Your task to perform on an android device: turn off improve location accuracy Image 0: 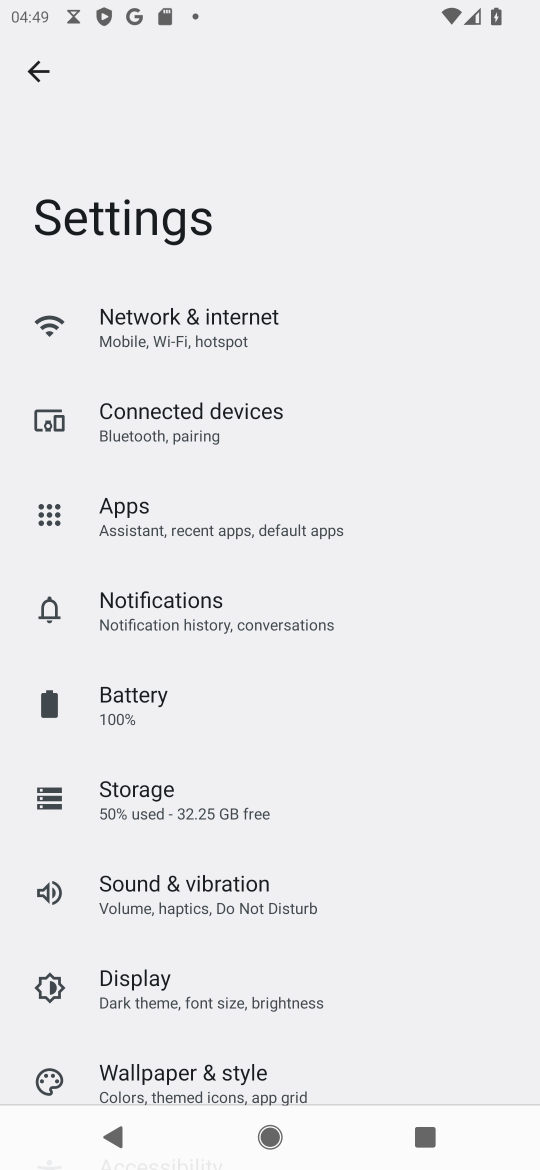
Step 0: press home button
Your task to perform on an android device: turn off improve location accuracy Image 1: 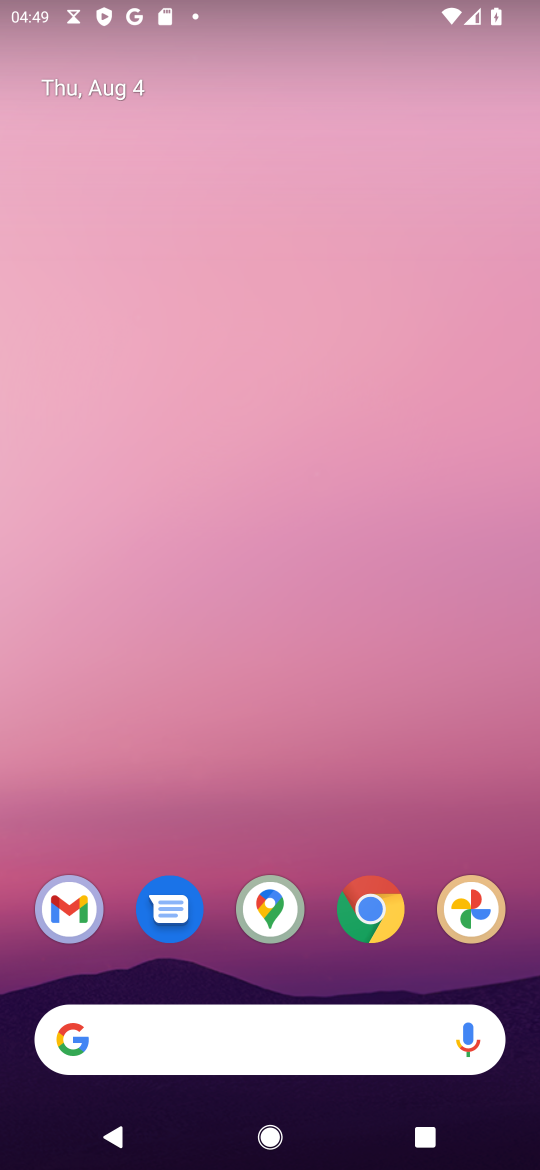
Step 1: drag from (204, 1033) to (280, 216)
Your task to perform on an android device: turn off improve location accuracy Image 2: 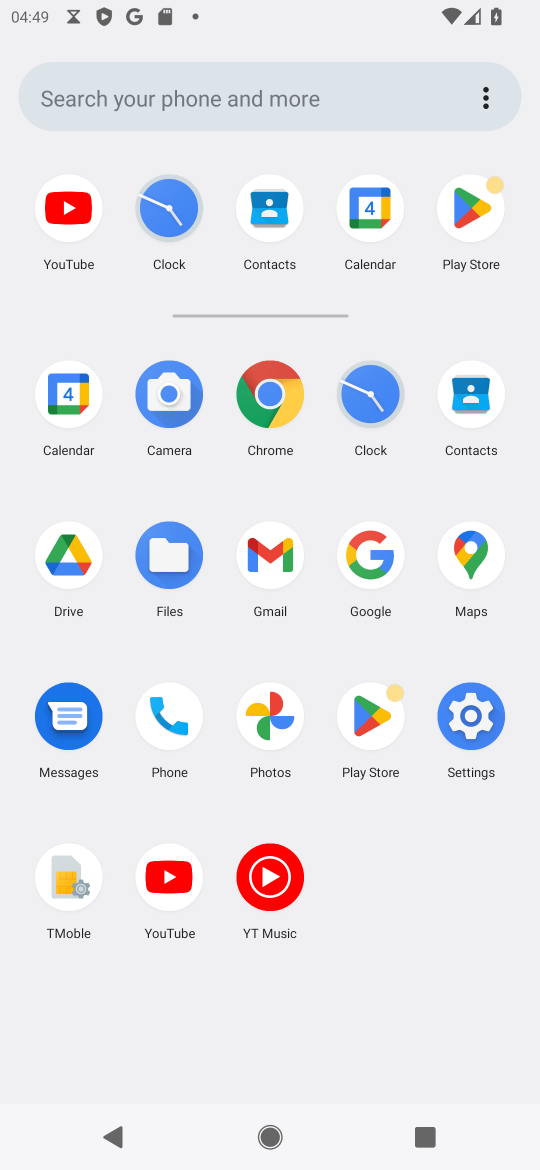
Step 2: click (466, 727)
Your task to perform on an android device: turn off improve location accuracy Image 3: 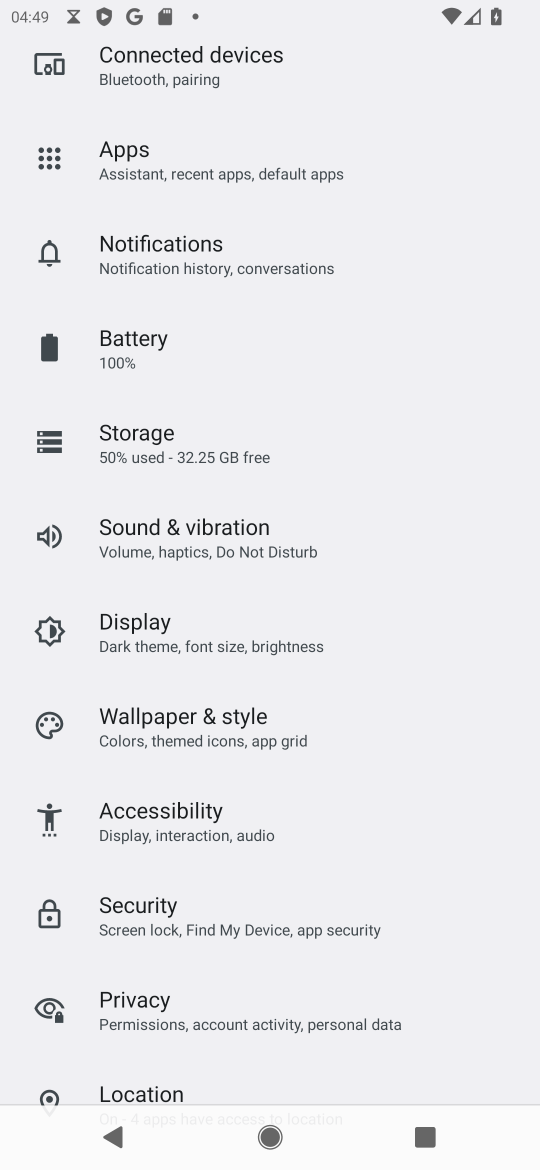
Step 3: drag from (349, 967) to (420, 379)
Your task to perform on an android device: turn off improve location accuracy Image 4: 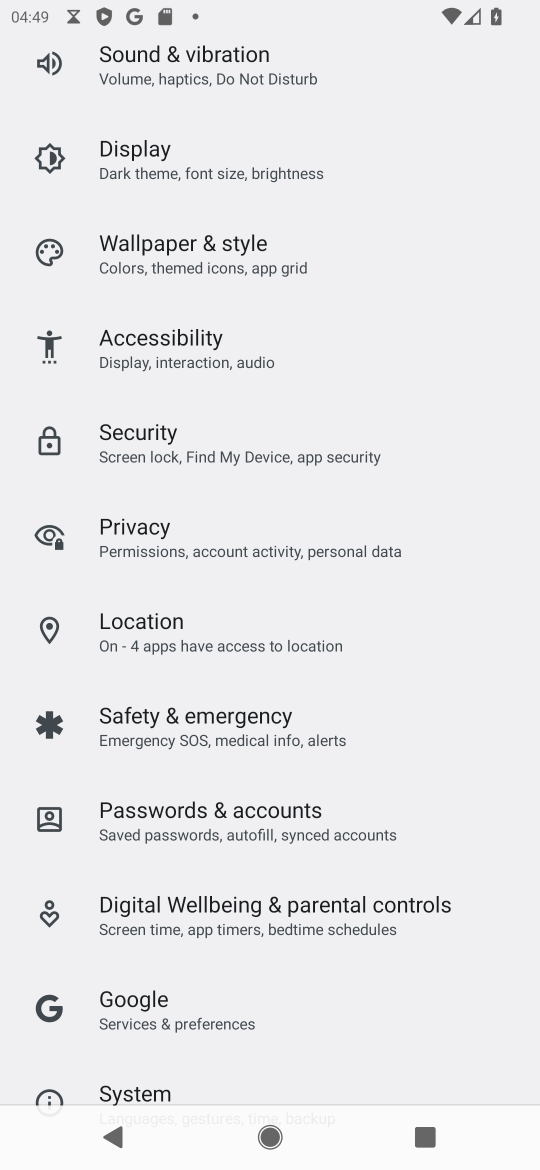
Step 4: click (199, 627)
Your task to perform on an android device: turn off improve location accuracy Image 5: 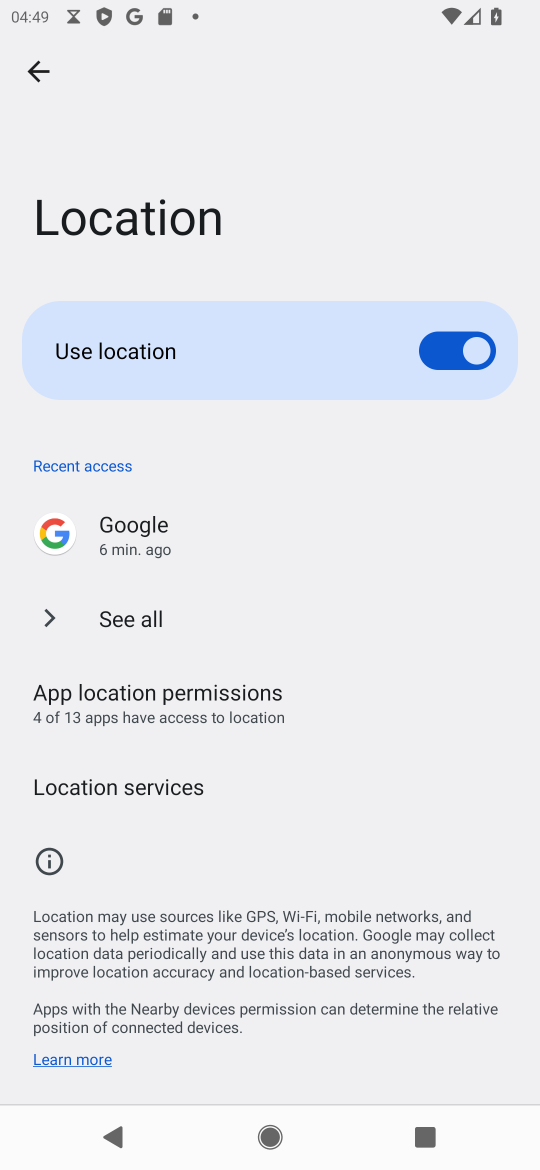
Step 5: click (163, 786)
Your task to perform on an android device: turn off improve location accuracy Image 6: 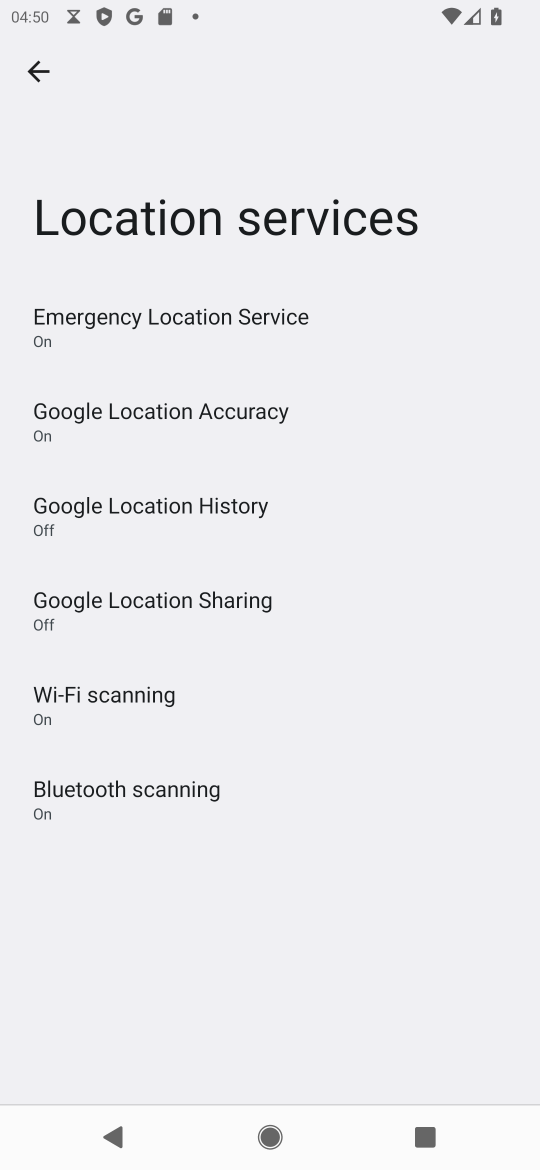
Step 6: click (232, 404)
Your task to perform on an android device: turn off improve location accuracy Image 7: 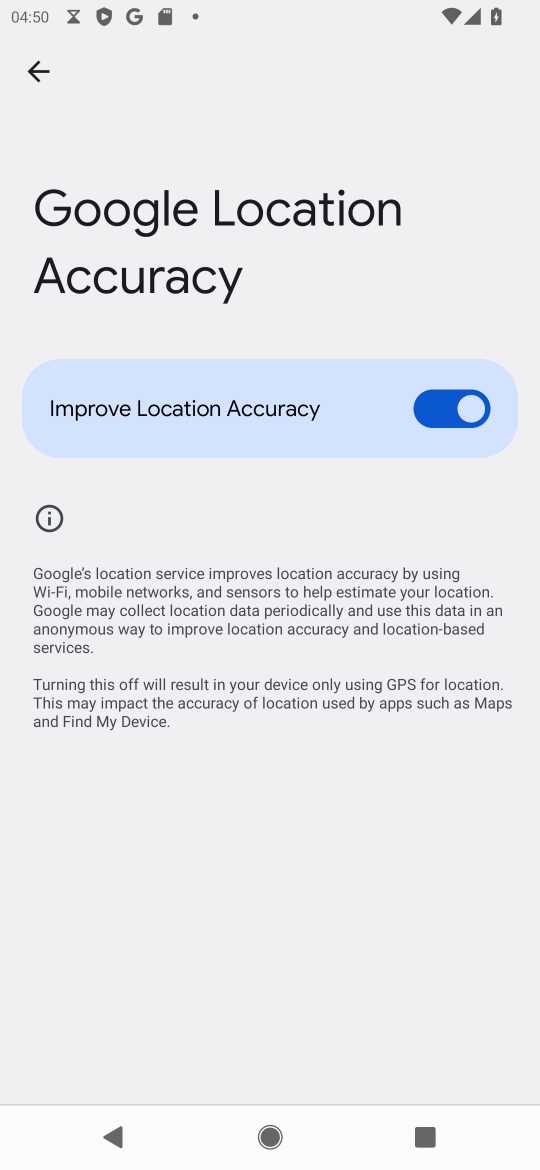
Step 7: click (425, 413)
Your task to perform on an android device: turn off improve location accuracy Image 8: 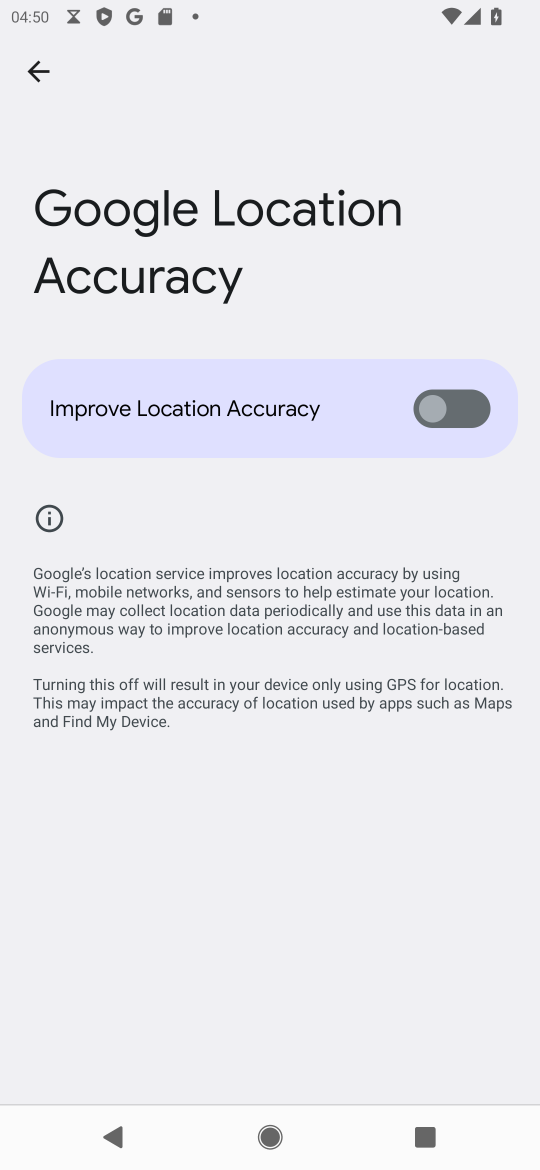
Step 8: task complete